Your task to perform on an android device: open a new tab in the chrome app Image 0: 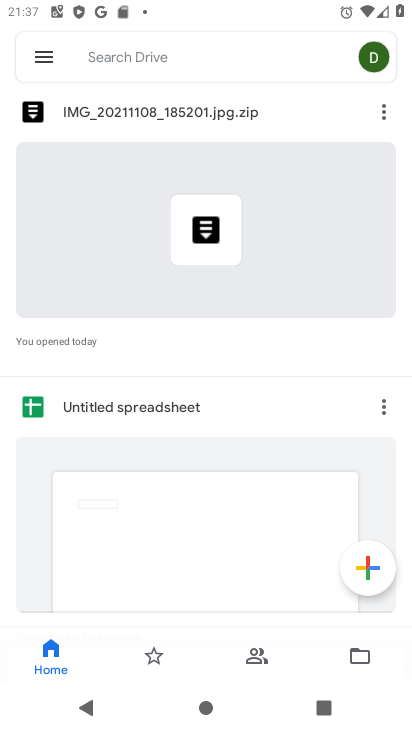
Step 0: press home button
Your task to perform on an android device: open a new tab in the chrome app Image 1: 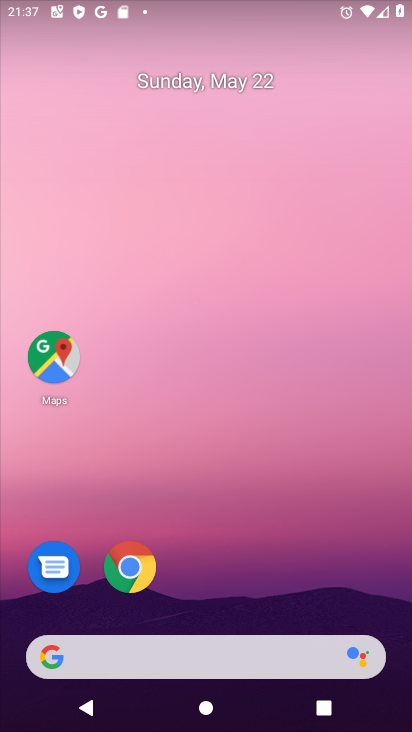
Step 1: click (135, 571)
Your task to perform on an android device: open a new tab in the chrome app Image 2: 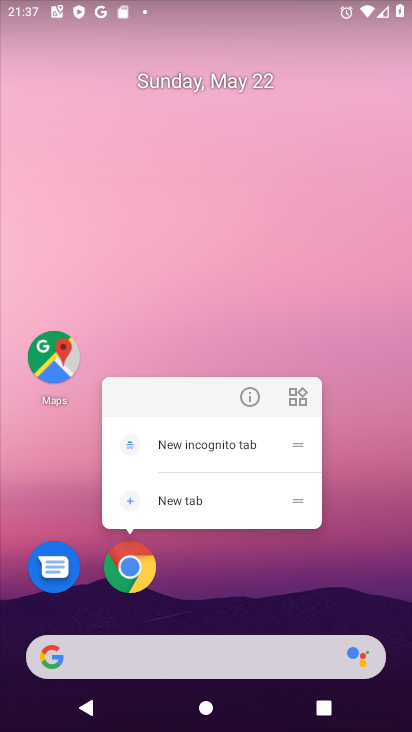
Step 2: click (133, 564)
Your task to perform on an android device: open a new tab in the chrome app Image 3: 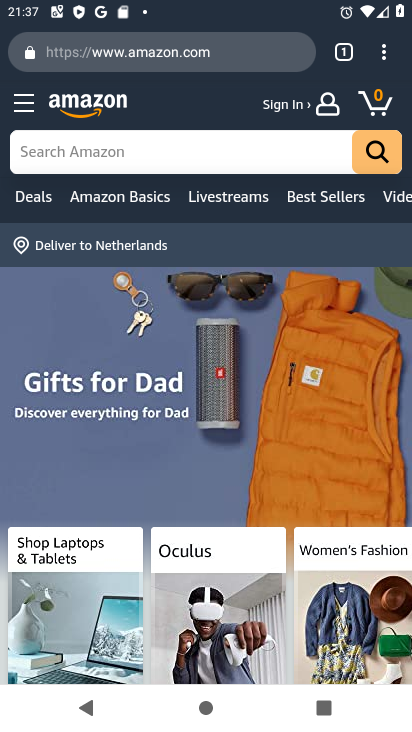
Step 3: click (385, 48)
Your task to perform on an android device: open a new tab in the chrome app Image 4: 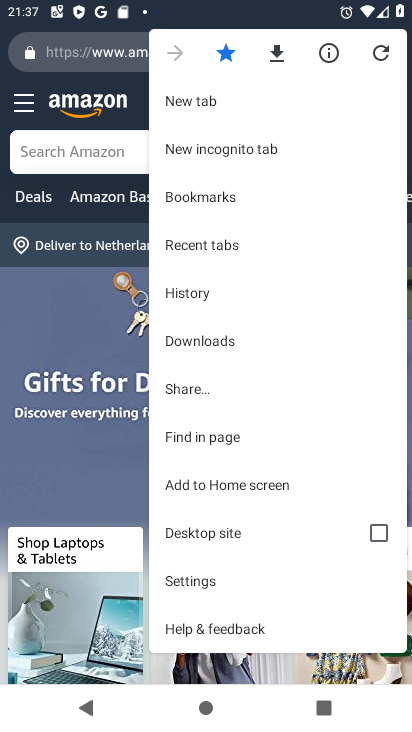
Step 4: click (221, 99)
Your task to perform on an android device: open a new tab in the chrome app Image 5: 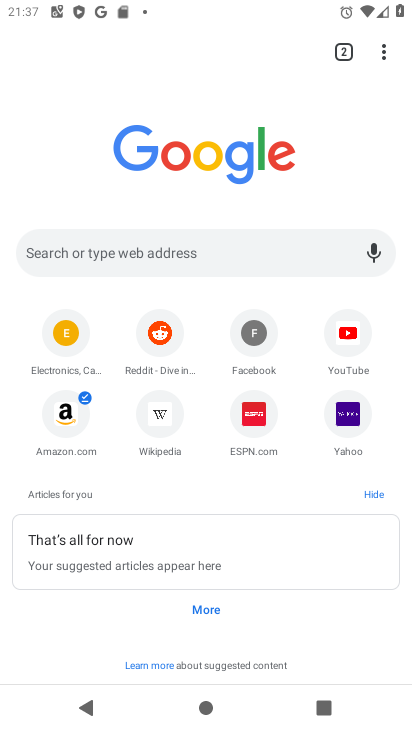
Step 5: task complete